Your task to perform on an android device: see sites visited before in the chrome app Image 0: 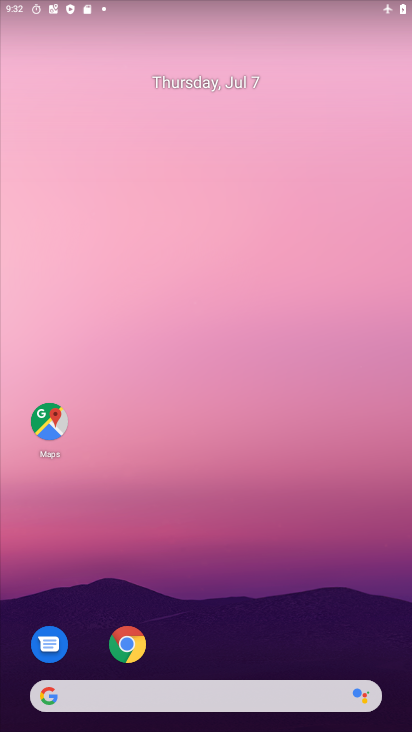
Step 0: click (129, 641)
Your task to perform on an android device: see sites visited before in the chrome app Image 1: 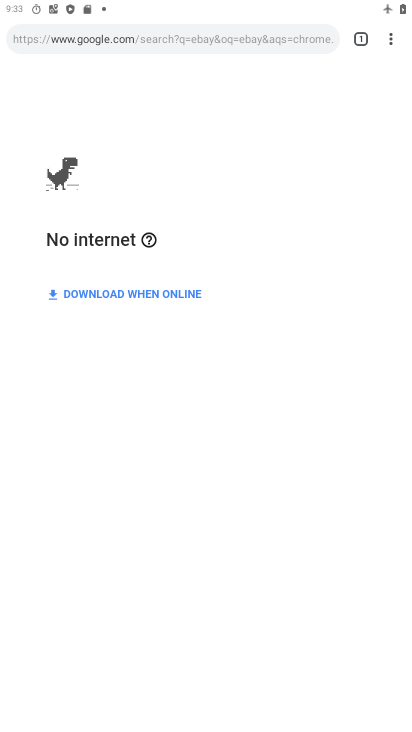
Step 1: task complete